Your task to perform on an android device: Go to eBay Image 0: 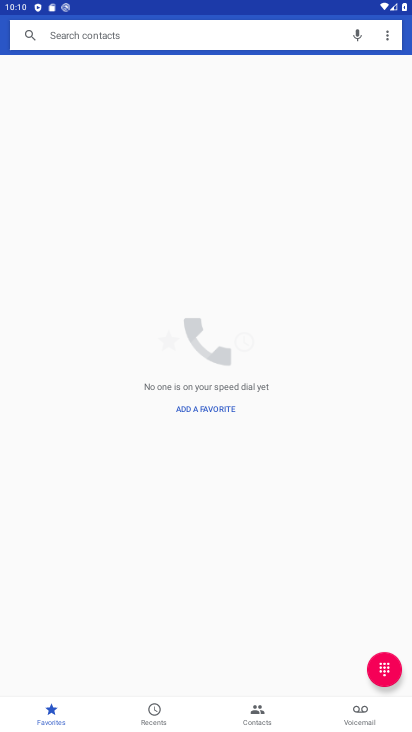
Step 0: click (224, 87)
Your task to perform on an android device: Go to eBay Image 1: 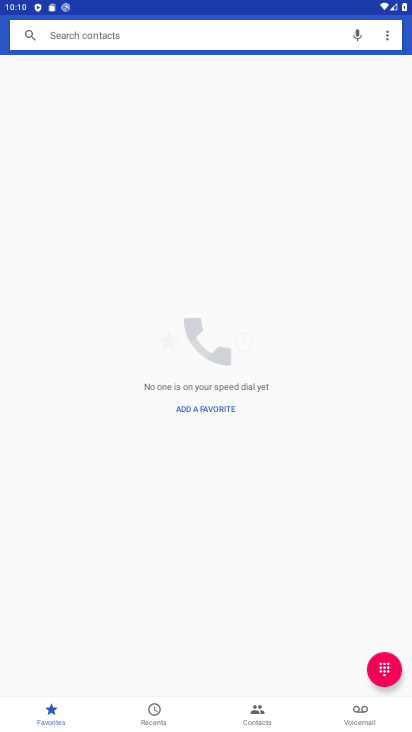
Step 1: press home button
Your task to perform on an android device: Go to eBay Image 2: 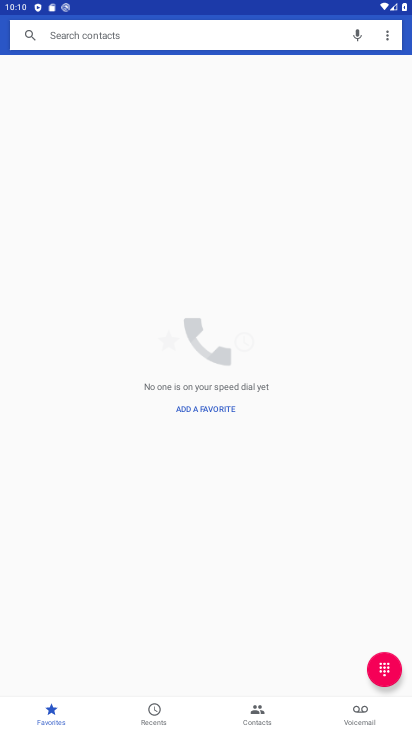
Step 2: drag from (224, 87) to (390, 591)
Your task to perform on an android device: Go to eBay Image 3: 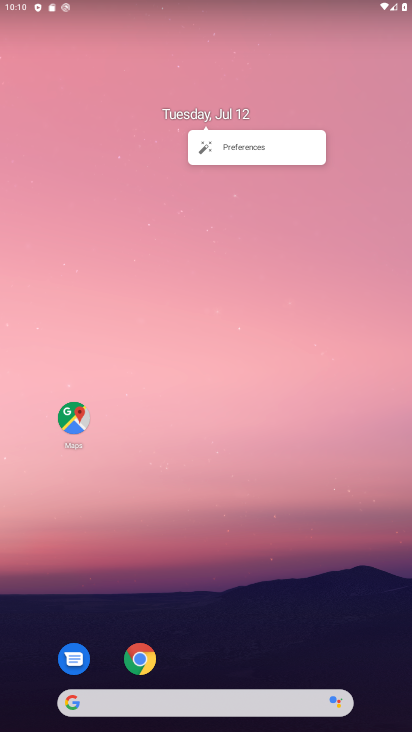
Step 3: click (143, 666)
Your task to perform on an android device: Go to eBay Image 4: 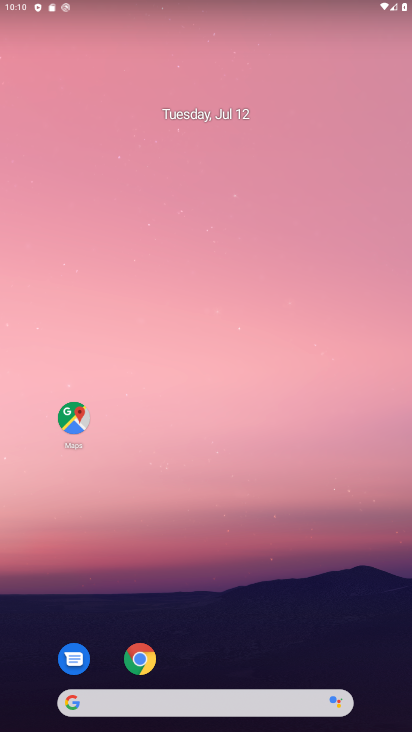
Step 4: click (136, 655)
Your task to perform on an android device: Go to eBay Image 5: 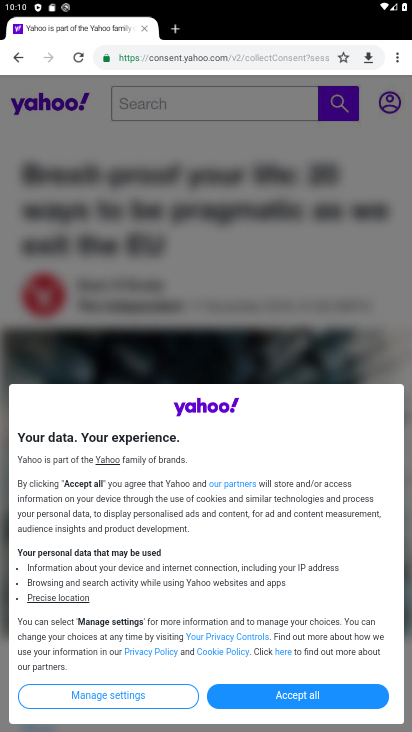
Step 5: click (17, 55)
Your task to perform on an android device: Go to eBay Image 6: 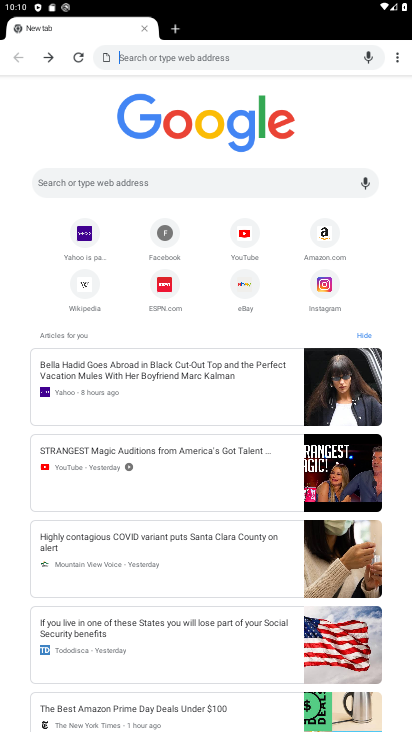
Step 6: click (238, 288)
Your task to perform on an android device: Go to eBay Image 7: 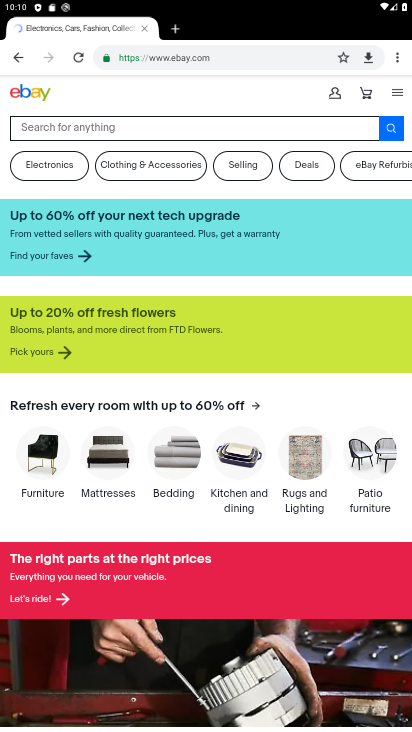
Step 7: task complete